Your task to perform on an android device: toggle data saver in the chrome app Image 0: 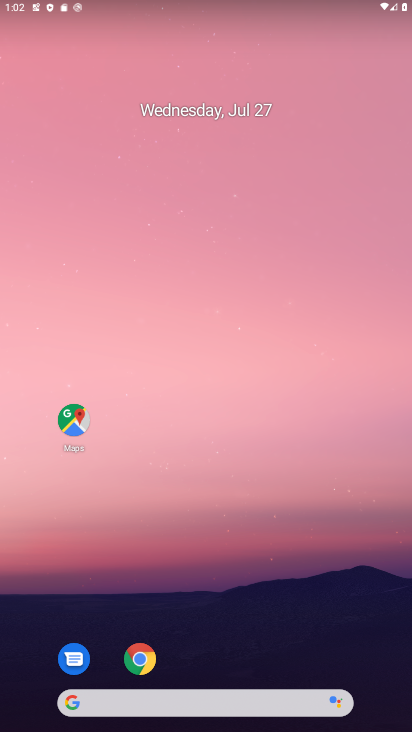
Step 0: press home button
Your task to perform on an android device: toggle data saver in the chrome app Image 1: 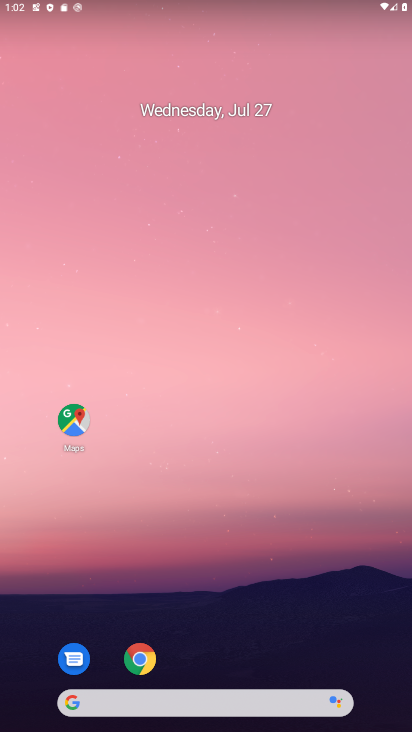
Step 1: drag from (346, 622) to (330, 154)
Your task to perform on an android device: toggle data saver in the chrome app Image 2: 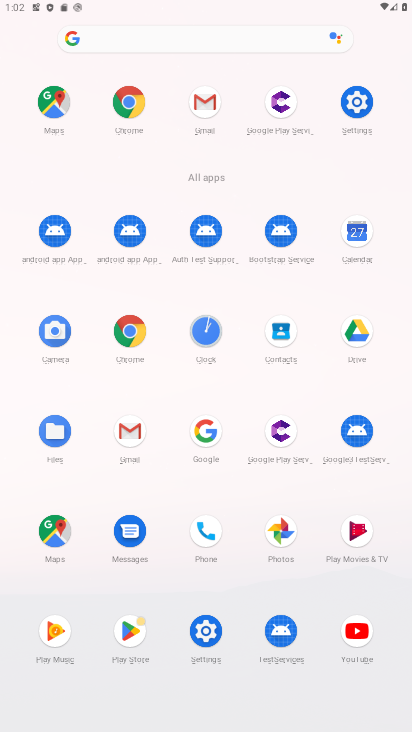
Step 2: click (137, 359)
Your task to perform on an android device: toggle data saver in the chrome app Image 3: 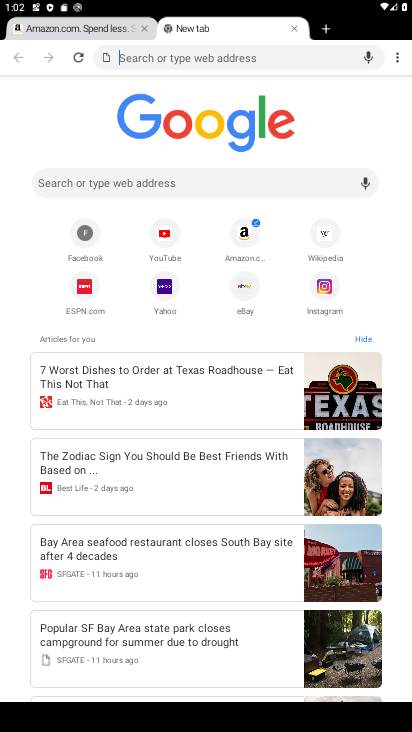
Step 3: drag from (395, 62) to (274, 263)
Your task to perform on an android device: toggle data saver in the chrome app Image 4: 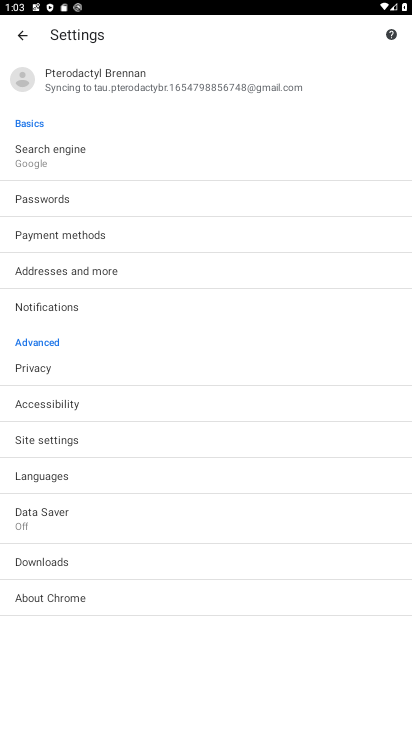
Step 4: click (62, 511)
Your task to perform on an android device: toggle data saver in the chrome app Image 5: 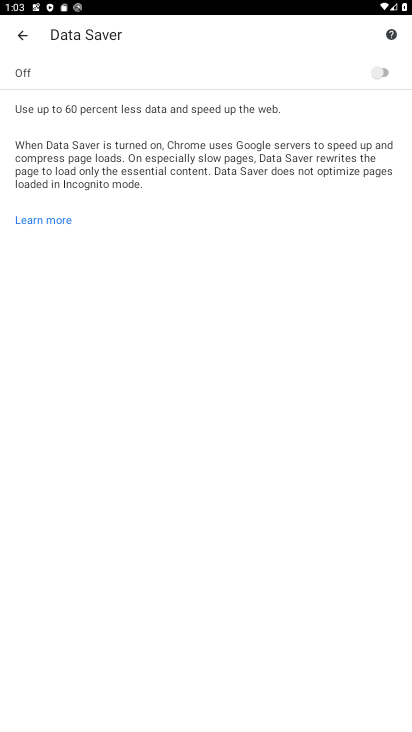
Step 5: click (359, 63)
Your task to perform on an android device: toggle data saver in the chrome app Image 6: 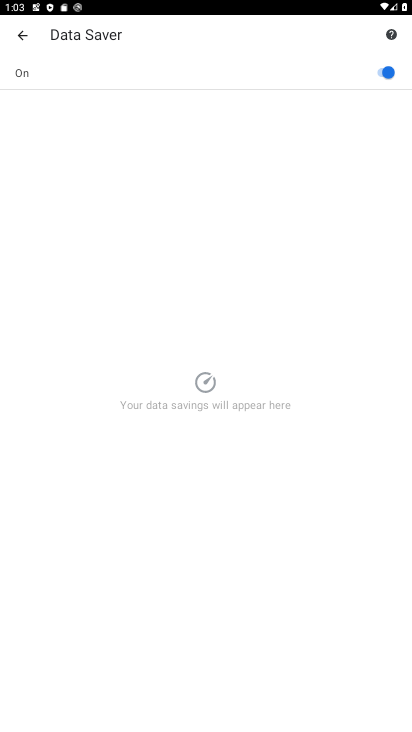
Step 6: task complete